Your task to perform on an android device: Open sound settings Image 0: 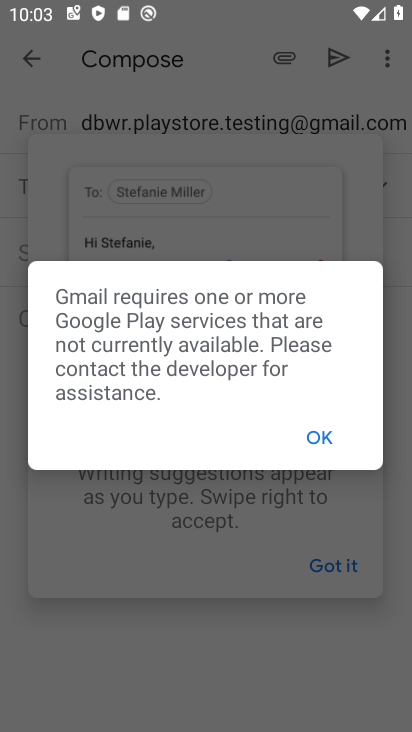
Step 0: press home button
Your task to perform on an android device: Open sound settings Image 1: 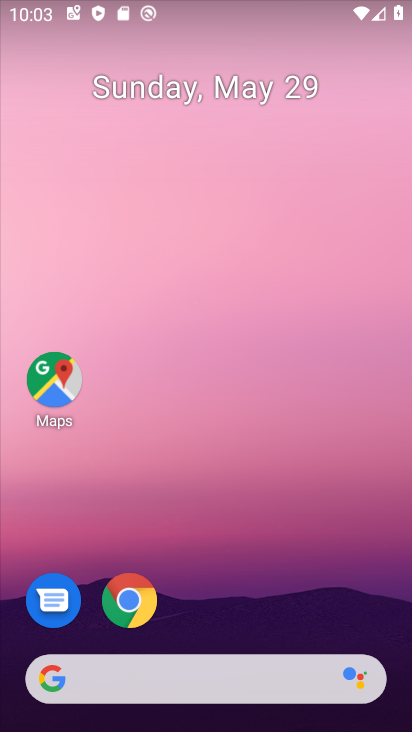
Step 1: drag from (265, 724) to (249, 113)
Your task to perform on an android device: Open sound settings Image 2: 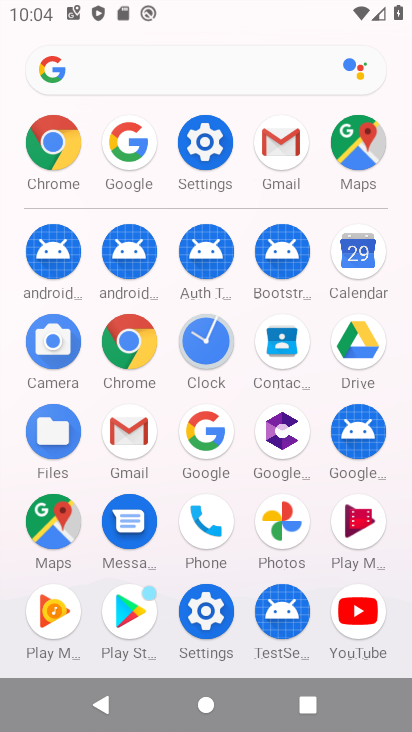
Step 2: click (213, 147)
Your task to perform on an android device: Open sound settings Image 3: 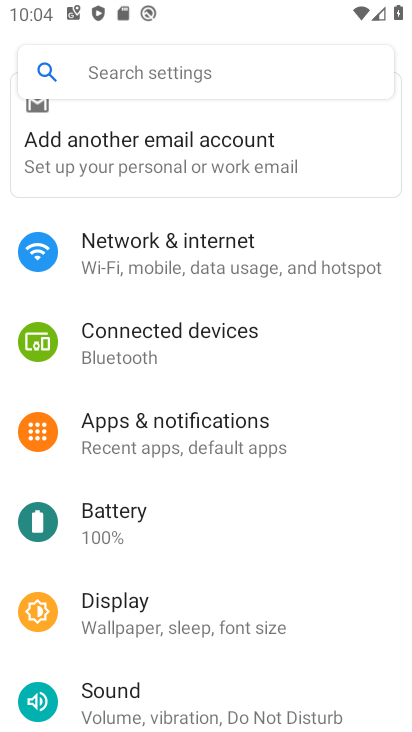
Step 3: click (114, 688)
Your task to perform on an android device: Open sound settings Image 4: 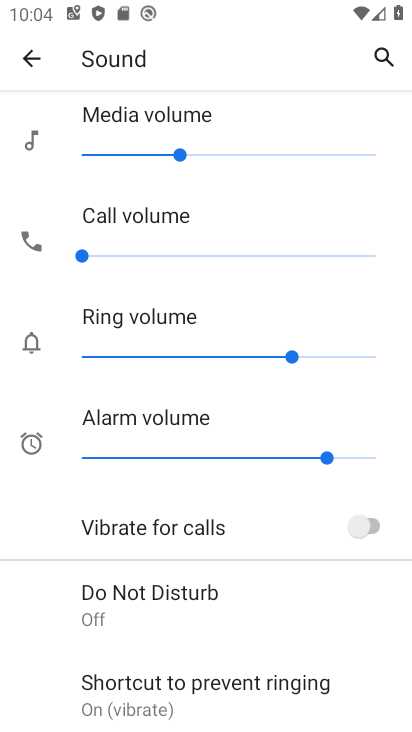
Step 4: task complete